Your task to perform on an android device: Go to Google maps Image 0: 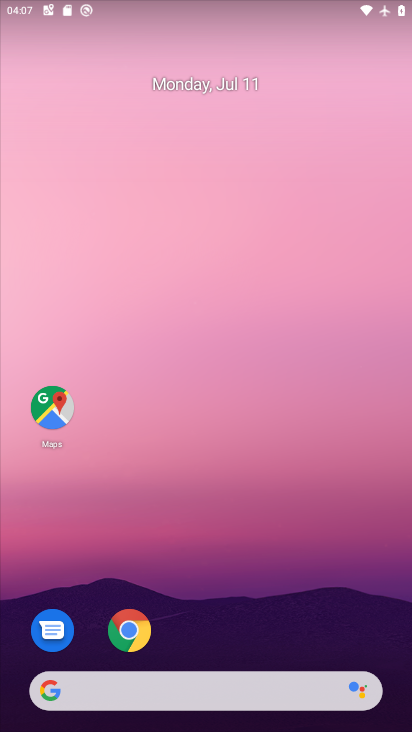
Step 0: drag from (290, 615) to (219, 41)
Your task to perform on an android device: Go to Google maps Image 1: 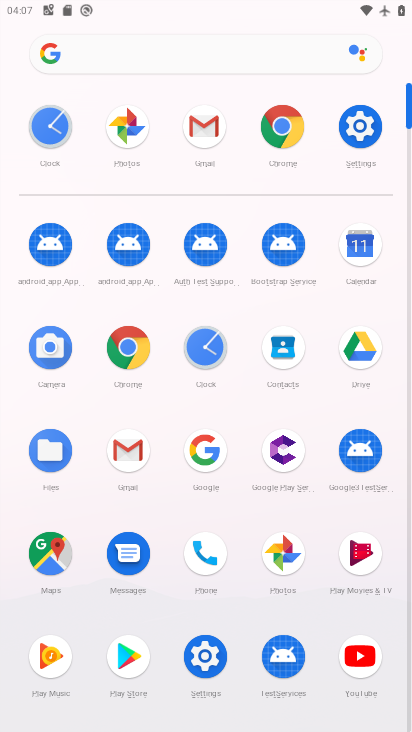
Step 1: click (46, 557)
Your task to perform on an android device: Go to Google maps Image 2: 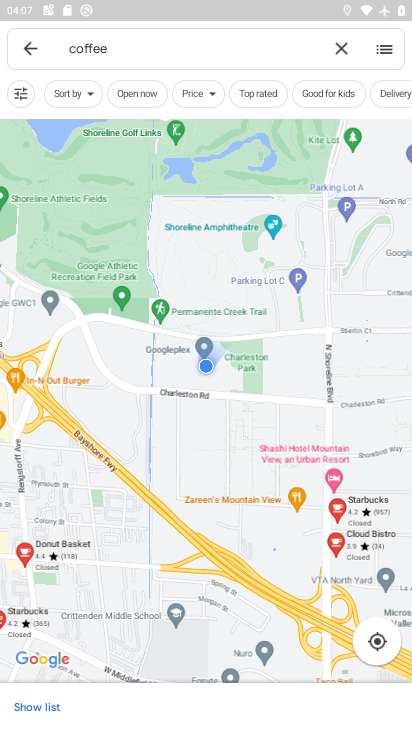
Step 2: task complete